Your task to perform on an android device: Go to display settings Image 0: 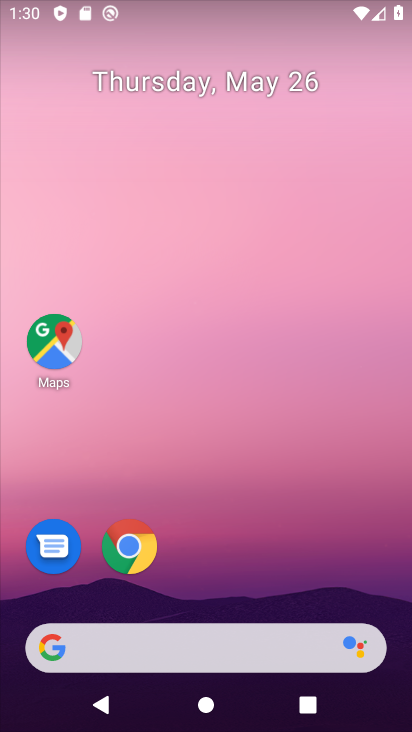
Step 0: drag from (239, 532) to (245, 88)
Your task to perform on an android device: Go to display settings Image 1: 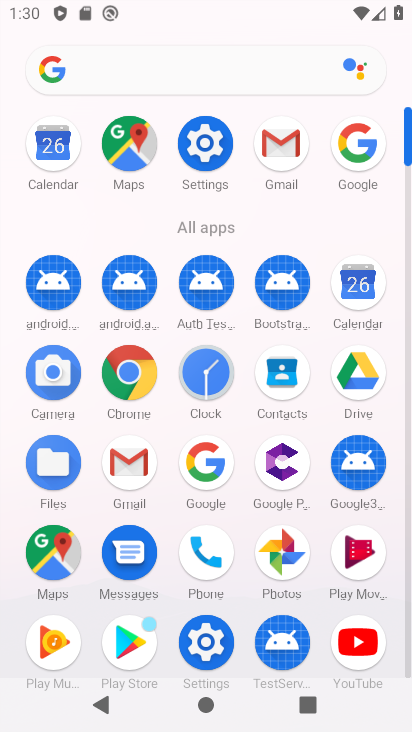
Step 1: click (200, 149)
Your task to perform on an android device: Go to display settings Image 2: 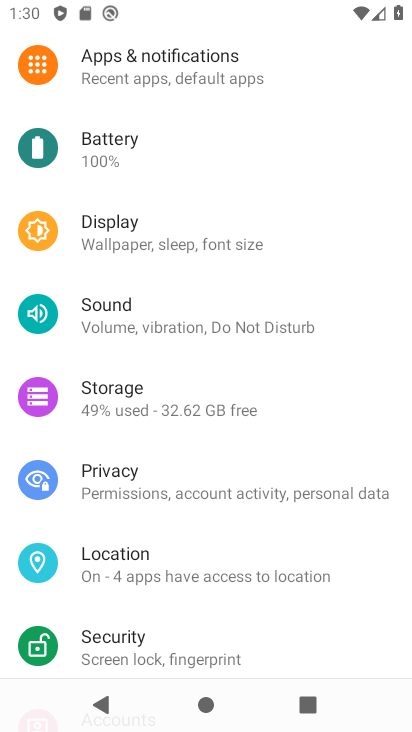
Step 2: click (137, 237)
Your task to perform on an android device: Go to display settings Image 3: 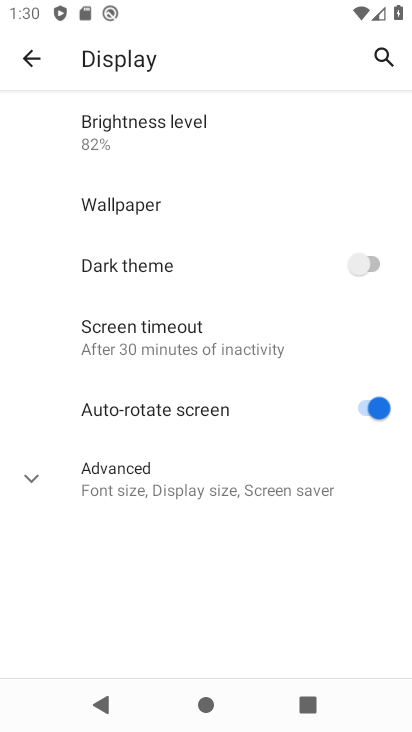
Step 3: task complete